Your task to perform on an android device: add a label to a message in the gmail app Image 0: 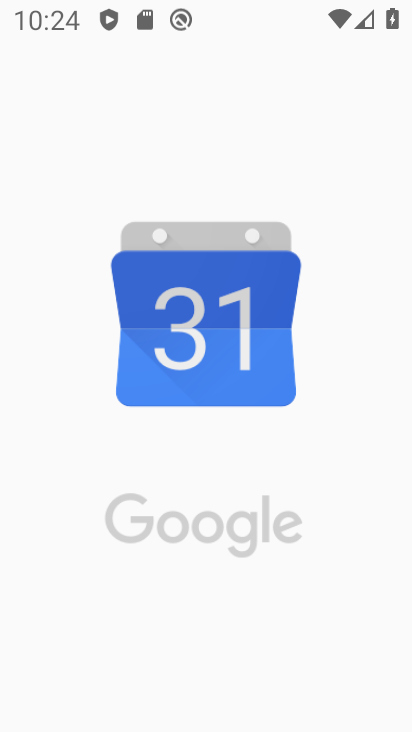
Step 0: drag from (242, 528) to (275, 207)
Your task to perform on an android device: add a label to a message in the gmail app Image 1: 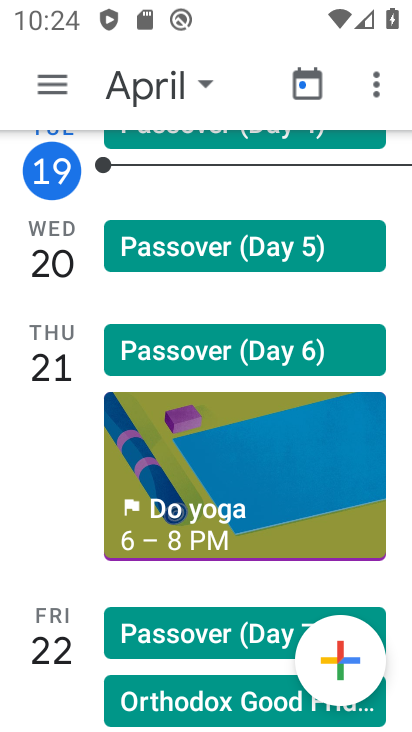
Step 1: press home button
Your task to perform on an android device: add a label to a message in the gmail app Image 2: 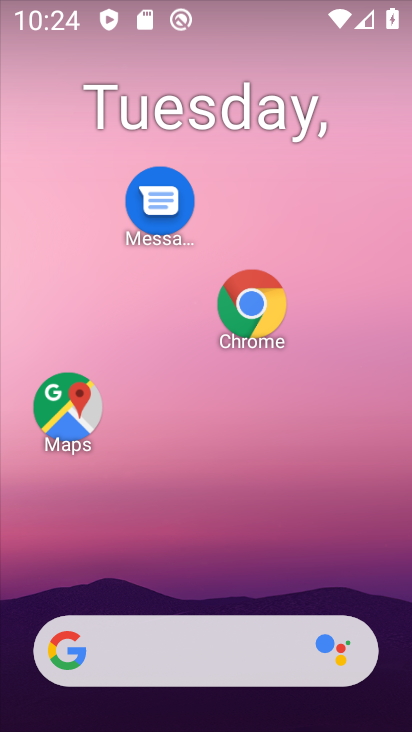
Step 2: drag from (258, 556) to (318, 137)
Your task to perform on an android device: add a label to a message in the gmail app Image 3: 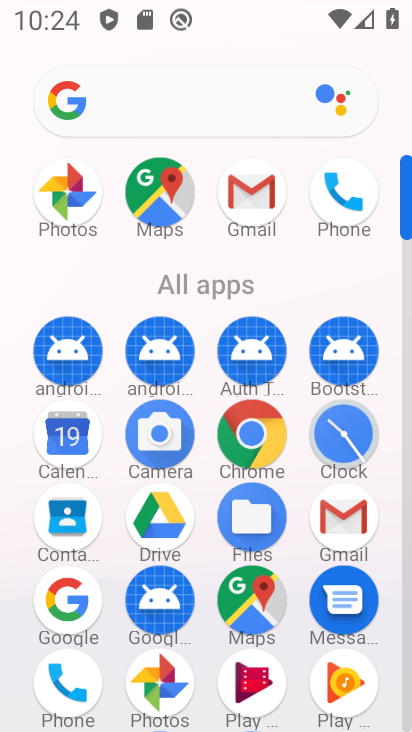
Step 3: click (236, 203)
Your task to perform on an android device: add a label to a message in the gmail app Image 4: 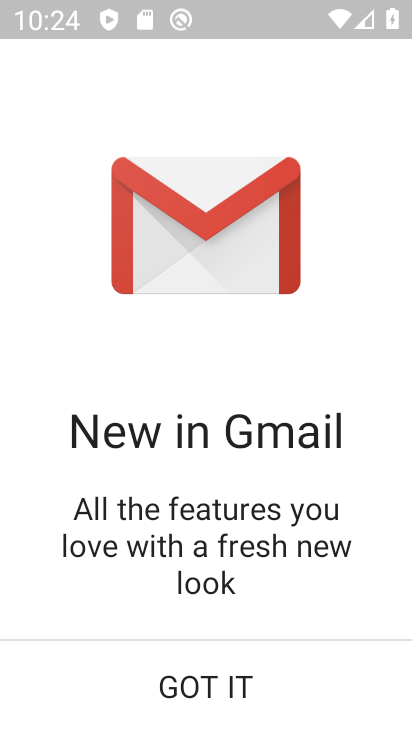
Step 4: click (227, 686)
Your task to perform on an android device: add a label to a message in the gmail app Image 5: 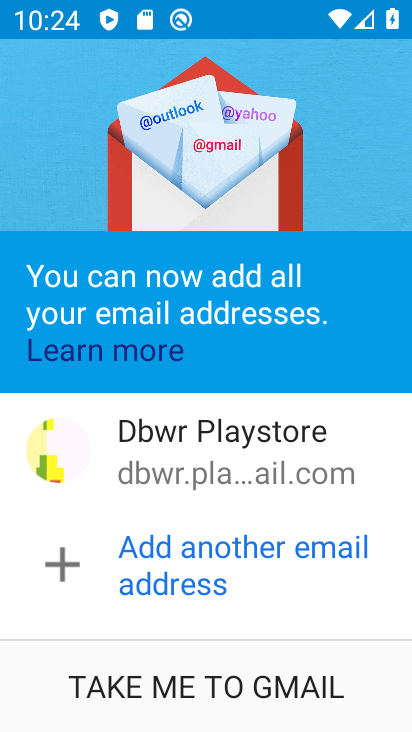
Step 5: click (241, 674)
Your task to perform on an android device: add a label to a message in the gmail app Image 6: 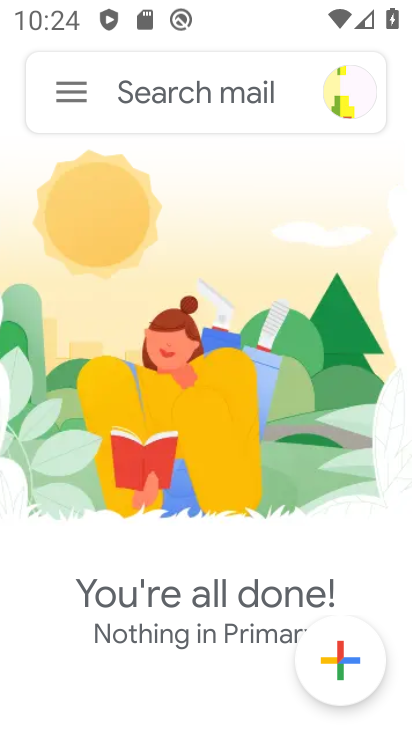
Step 6: click (79, 81)
Your task to perform on an android device: add a label to a message in the gmail app Image 7: 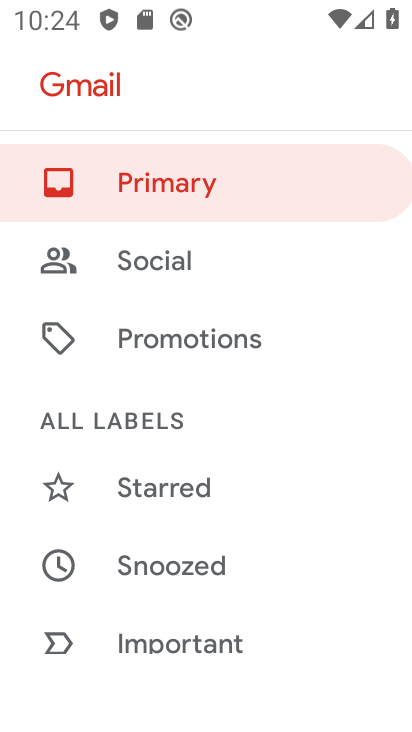
Step 7: drag from (191, 625) to (204, 505)
Your task to perform on an android device: add a label to a message in the gmail app Image 8: 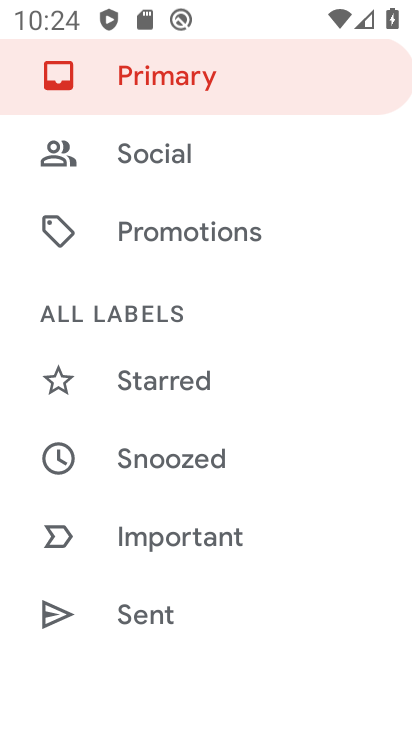
Step 8: drag from (186, 607) to (339, 126)
Your task to perform on an android device: add a label to a message in the gmail app Image 9: 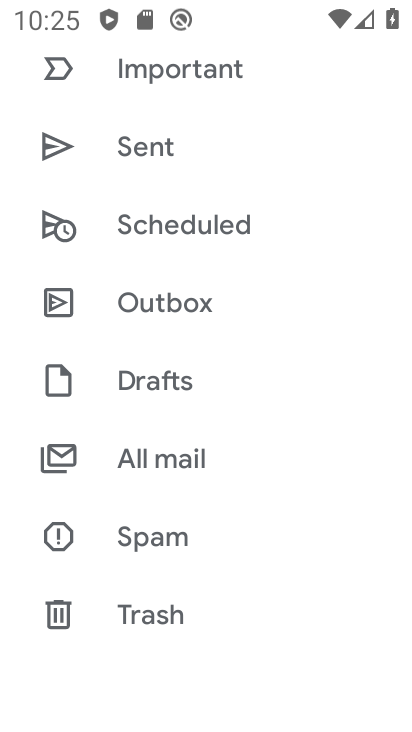
Step 9: click (136, 470)
Your task to perform on an android device: add a label to a message in the gmail app Image 10: 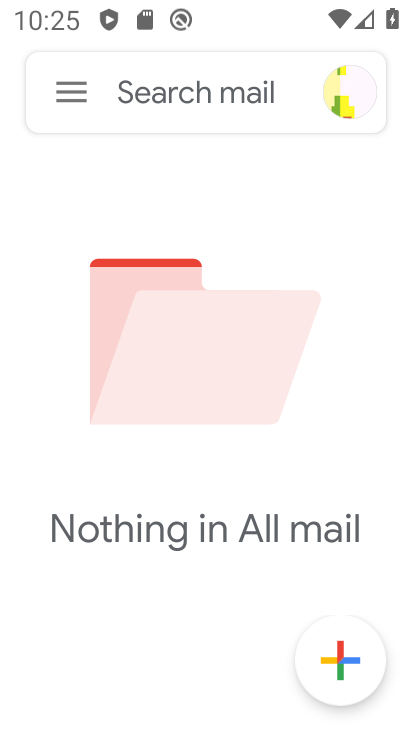
Step 10: task complete